Your task to perform on an android device: delete a single message in the gmail app Image 0: 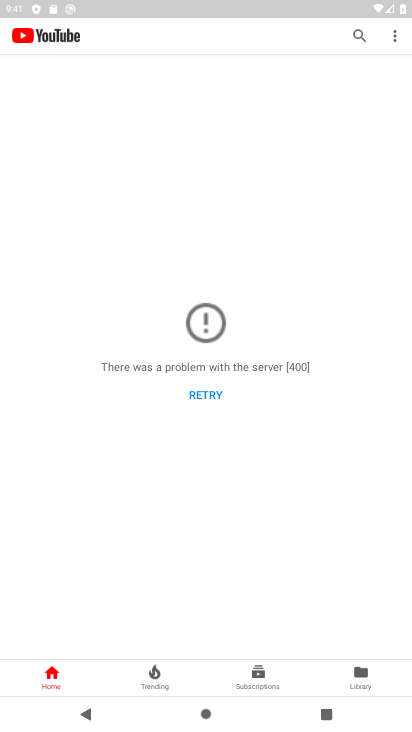
Step 0: press home button
Your task to perform on an android device: delete a single message in the gmail app Image 1: 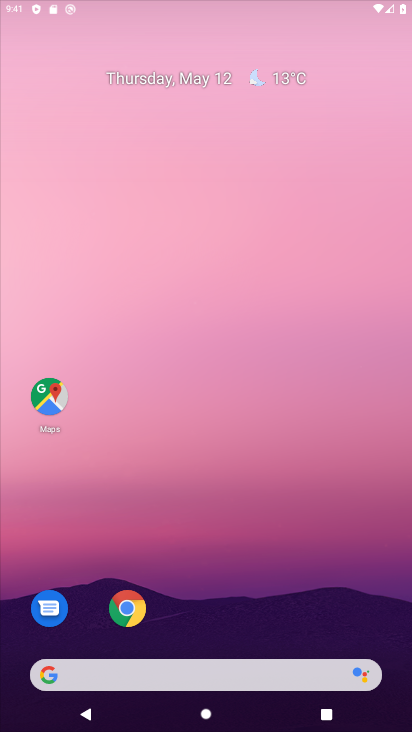
Step 1: drag from (246, 478) to (261, 130)
Your task to perform on an android device: delete a single message in the gmail app Image 2: 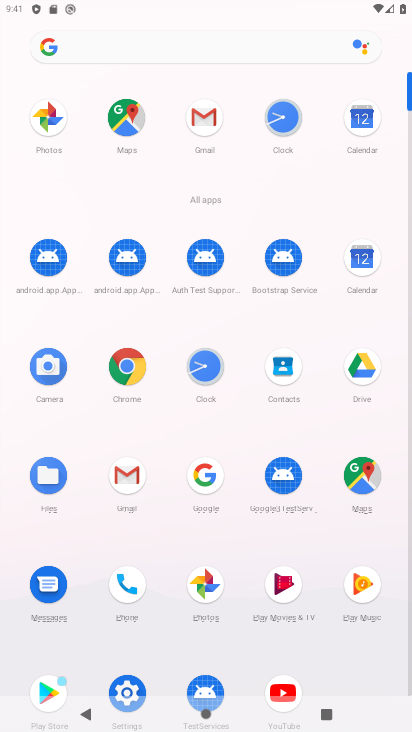
Step 2: click (202, 121)
Your task to perform on an android device: delete a single message in the gmail app Image 3: 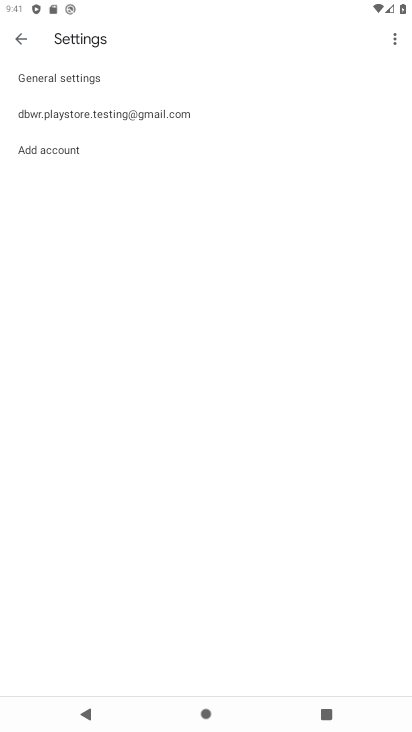
Step 3: click (81, 118)
Your task to perform on an android device: delete a single message in the gmail app Image 4: 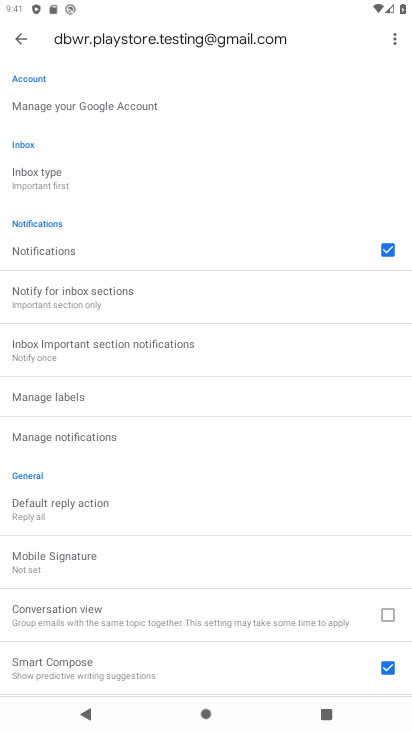
Step 4: press back button
Your task to perform on an android device: delete a single message in the gmail app Image 5: 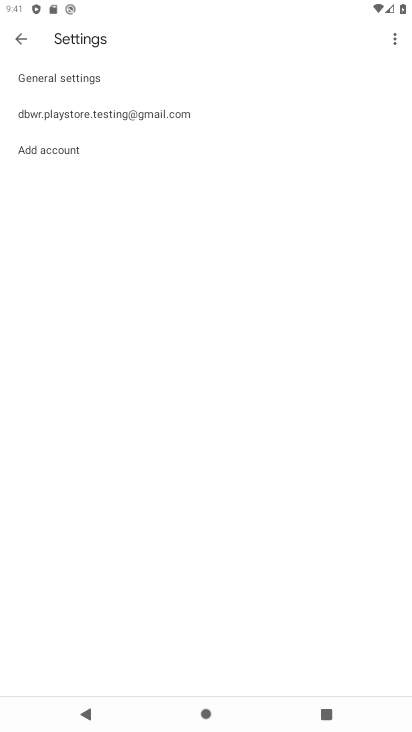
Step 5: press back button
Your task to perform on an android device: delete a single message in the gmail app Image 6: 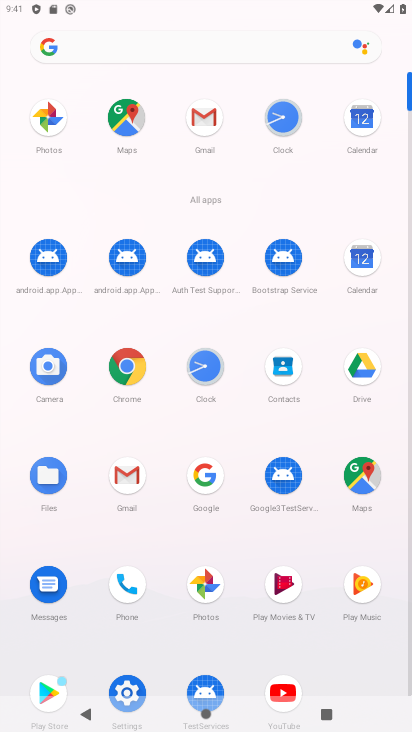
Step 6: click (211, 120)
Your task to perform on an android device: delete a single message in the gmail app Image 7: 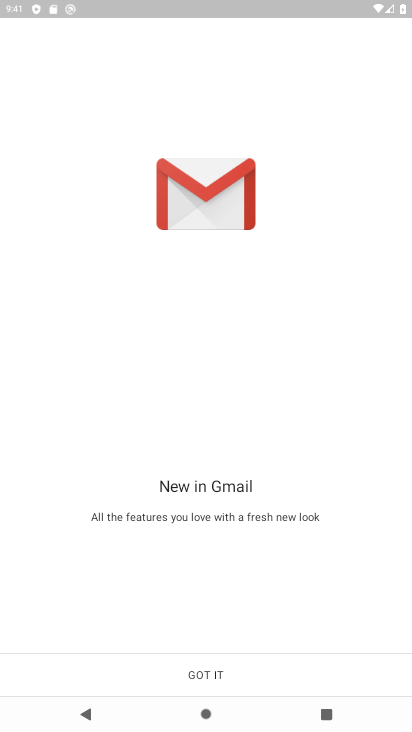
Step 7: click (193, 666)
Your task to perform on an android device: delete a single message in the gmail app Image 8: 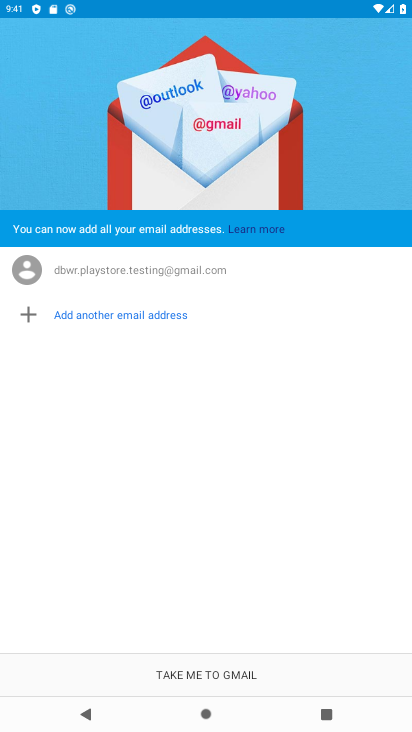
Step 8: click (212, 667)
Your task to perform on an android device: delete a single message in the gmail app Image 9: 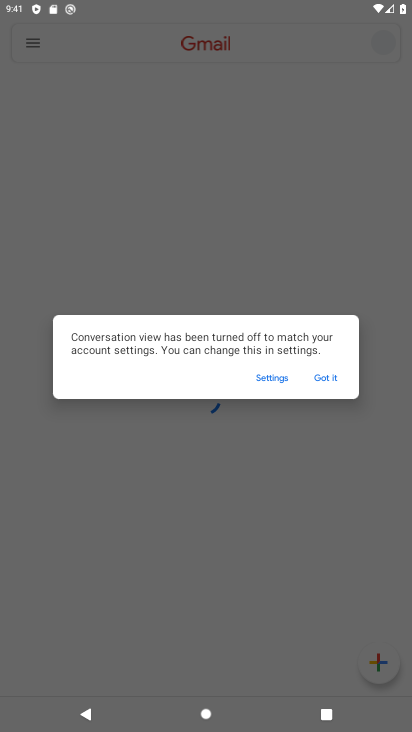
Step 9: click (321, 379)
Your task to perform on an android device: delete a single message in the gmail app Image 10: 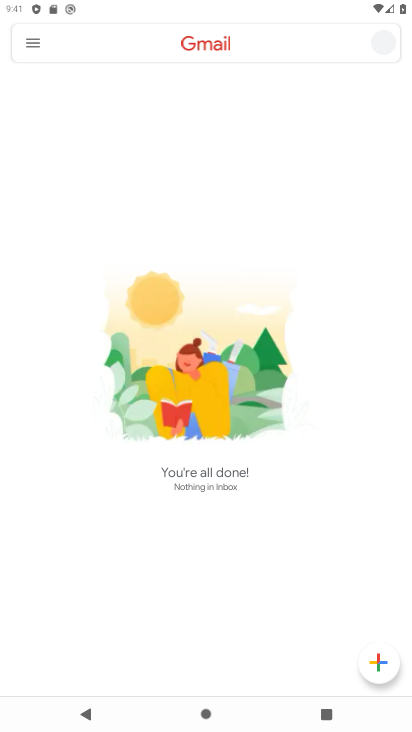
Step 10: click (37, 45)
Your task to perform on an android device: delete a single message in the gmail app Image 11: 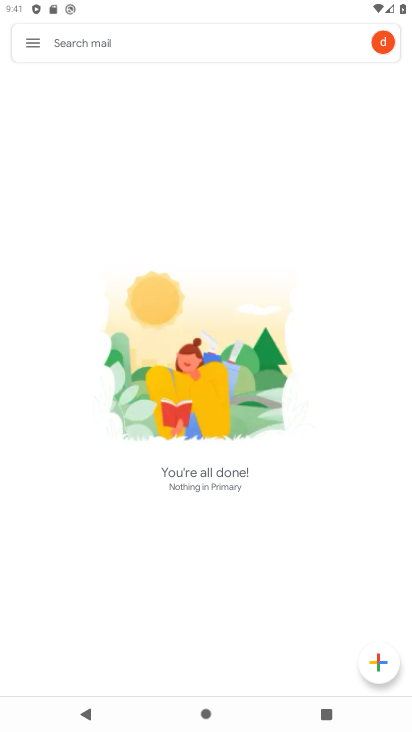
Step 11: click (34, 41)
Your task to perform on an android device: delete a single message in the gmail app Image 12: 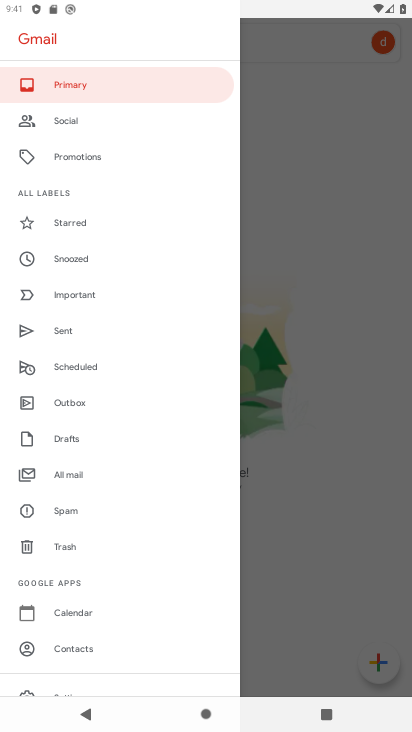
Step 12: click (58, 477)
Your task to perform on an android device: delete a single message in the gmail app Image 13: 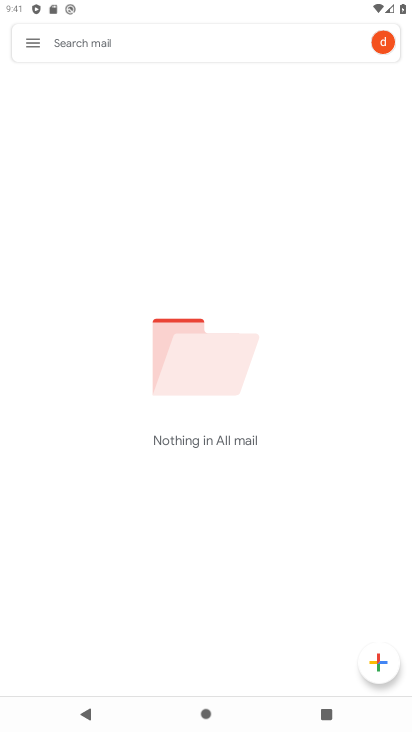
Step 13: task complete